Your task to perform on an android device: Clear the shopping cart on amazon.com. Image 0: 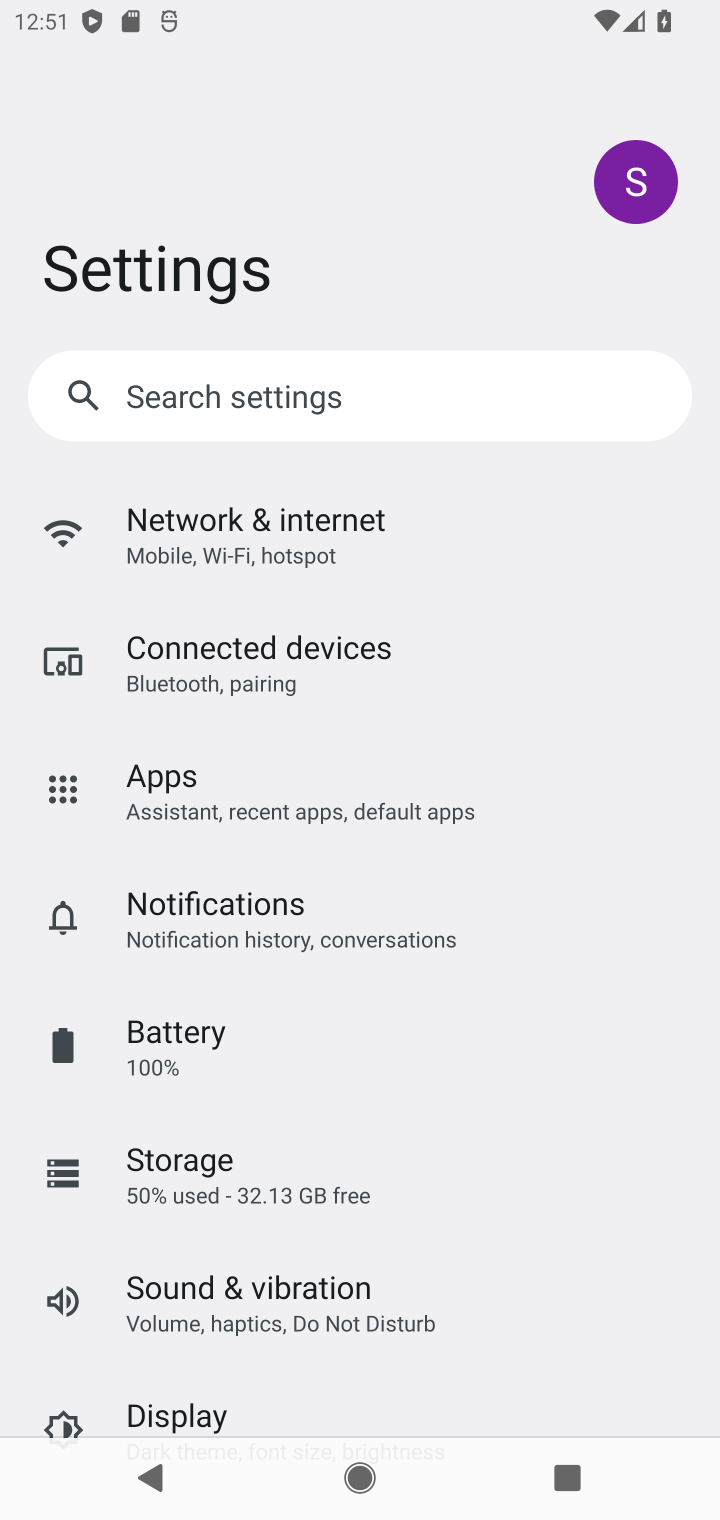
Step 0: press home button
Your task to perform on an android device: Clear the shopping cart on amazon.com. Image 1: 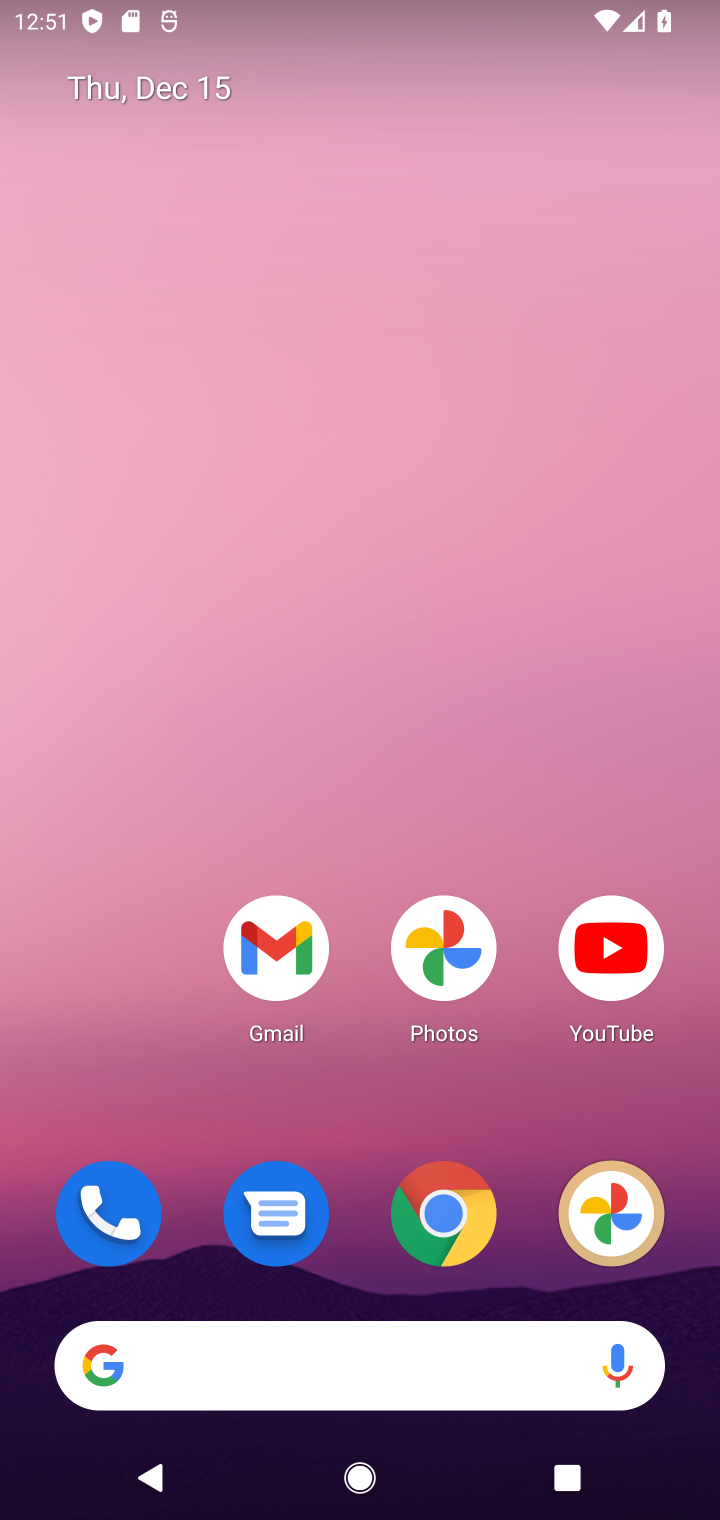
Step 1: click (439, 1207)
Your task to perform on an android device: Clear the shopping cart on amazon.com. Image 2: 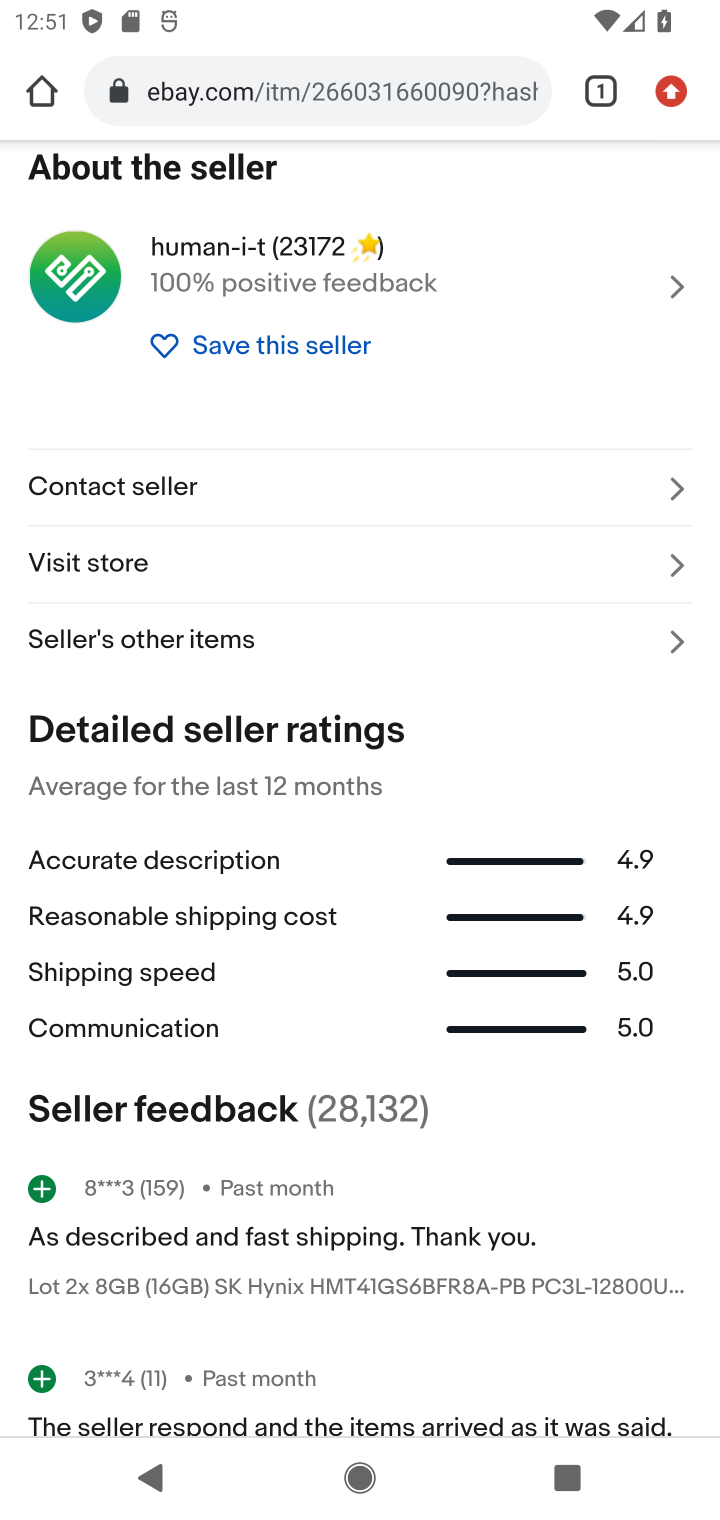
Step 2: click (328, 107)
Your task to perform on an android device: Clear the shopping cart on amazon.com. Image 3: 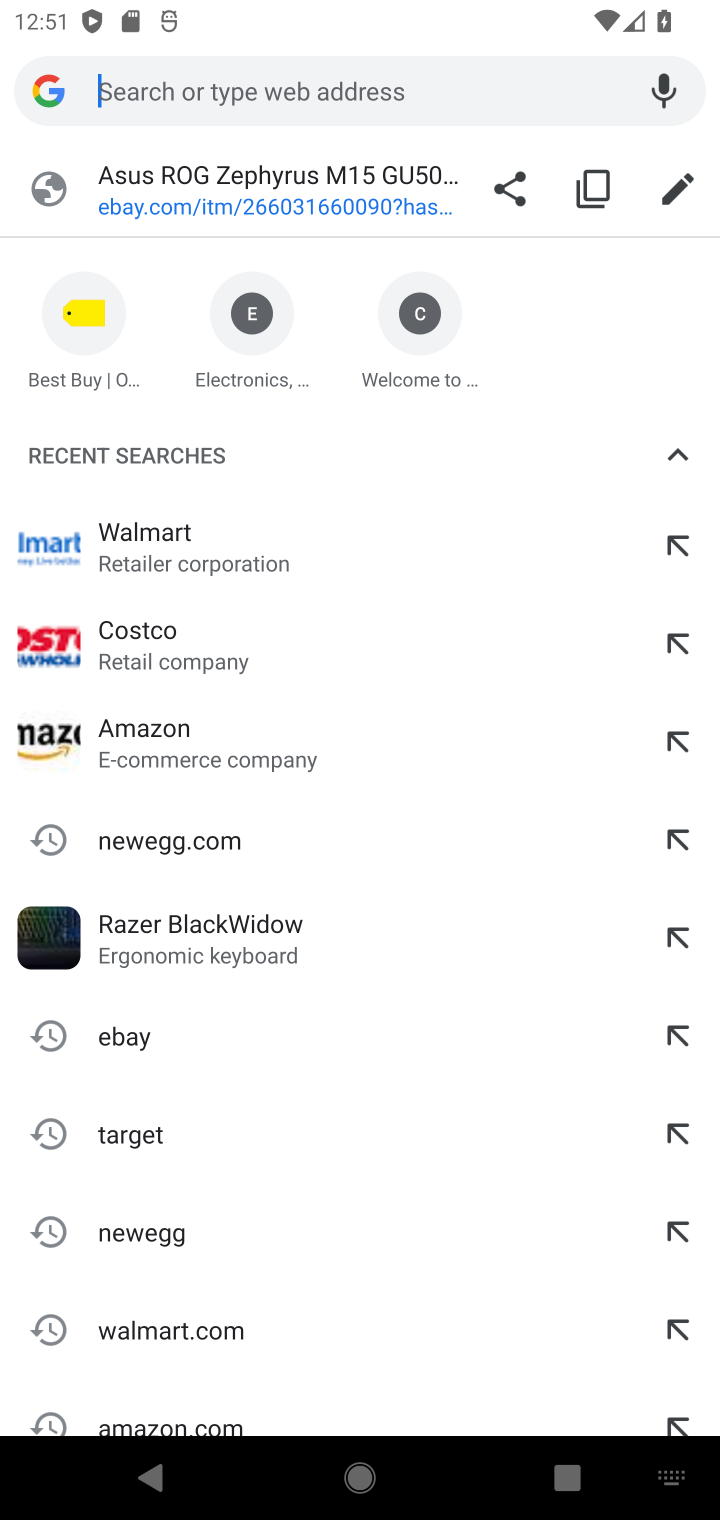
Step 3: click (230, 732)
Your task to perform on an android device: Clear the shopping cart on amazon.com. Image 4: 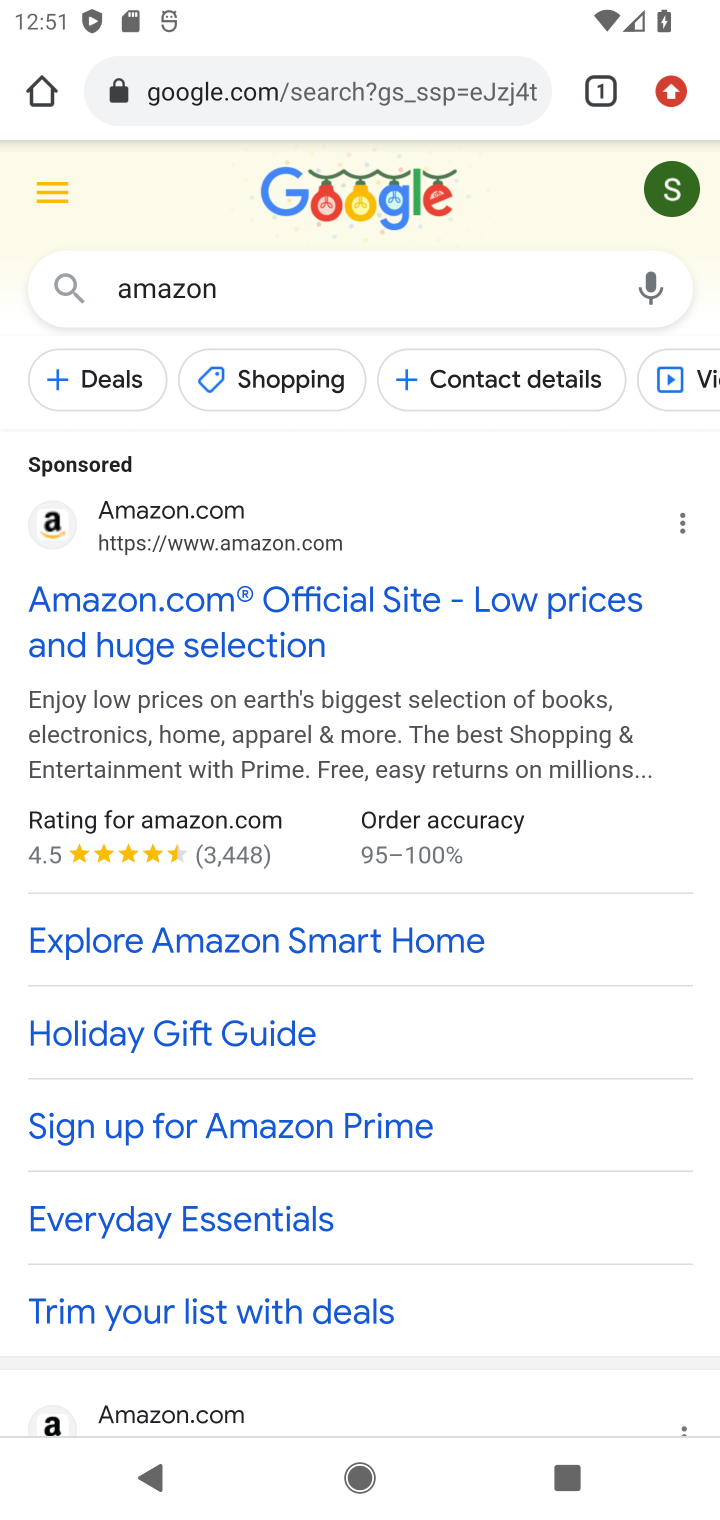
Step 4: click (234, 655)
Your task to perform on an android device: Clear the shopping cart on amazon.com. Image 5: 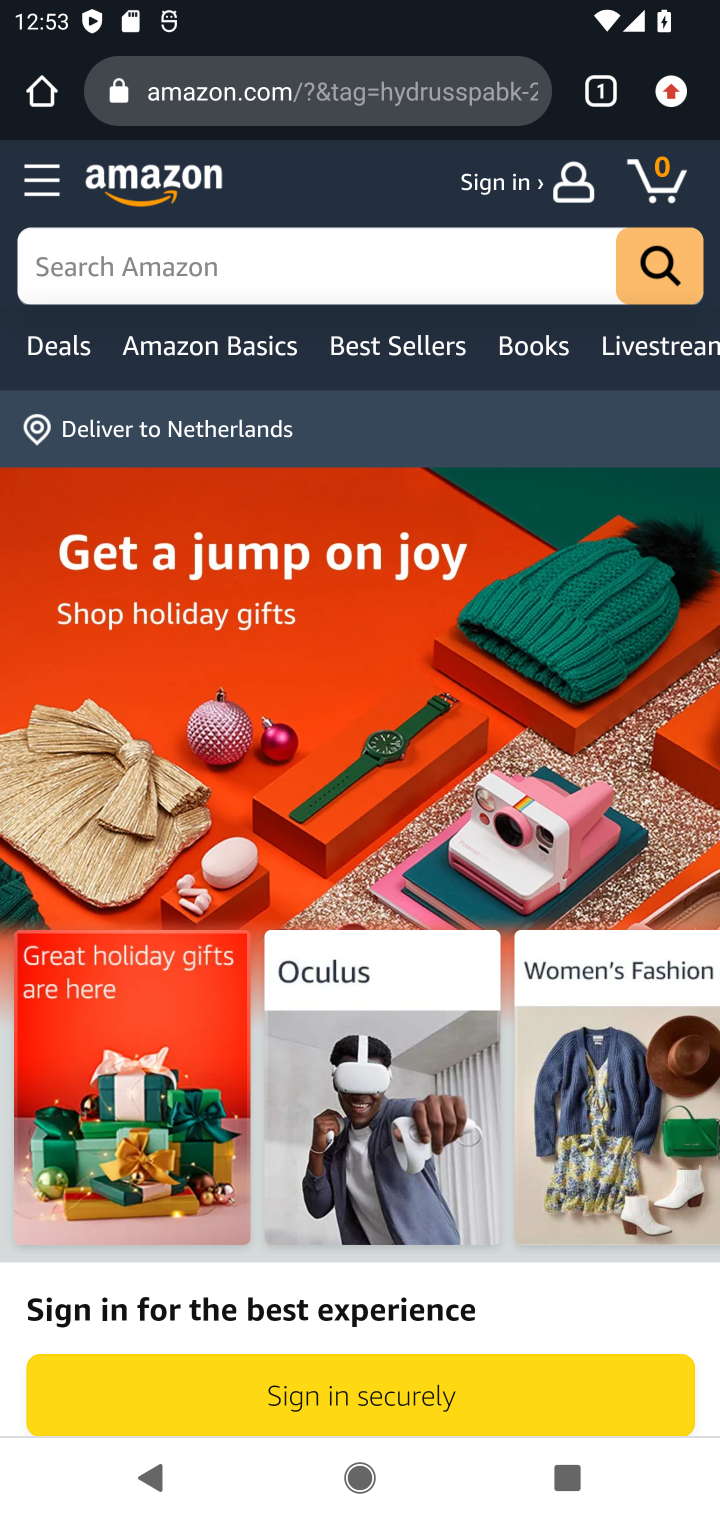
Step 5: task complete